Your task to perform on an android device: Go to Yahoo.com Image 0: 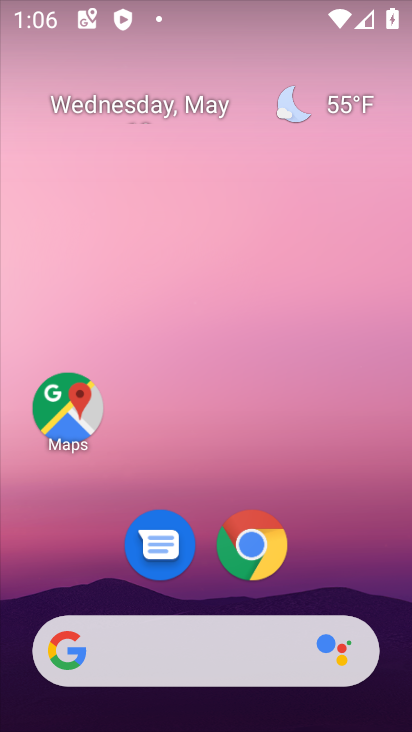
Step 0: click (246, 537)
Your task to perform on an android device: Go to Yahoo.com Image 1: 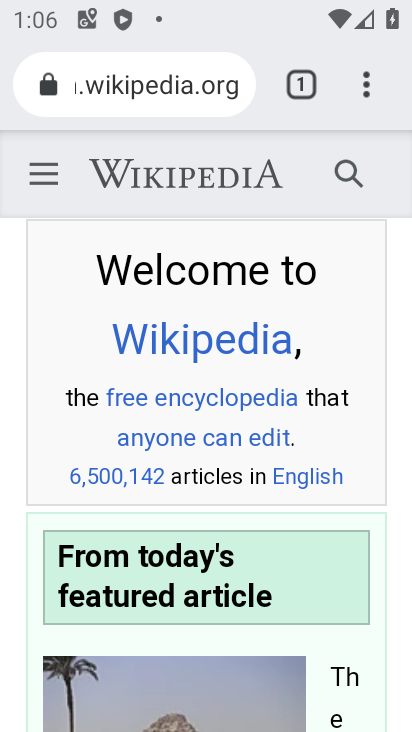
Step 1: click (296, 74)
Your task to perform on an android device: Go to Yahoo.com Image 2: 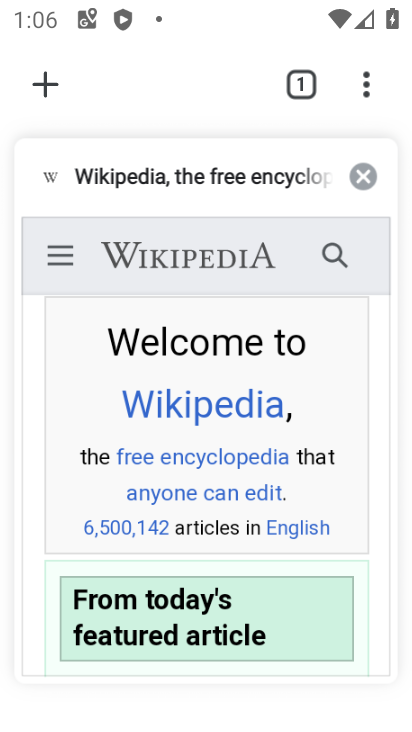
Step 2: click (362, 175)
Your task to perform on an android device: Go to Yahoo.com Image 3: 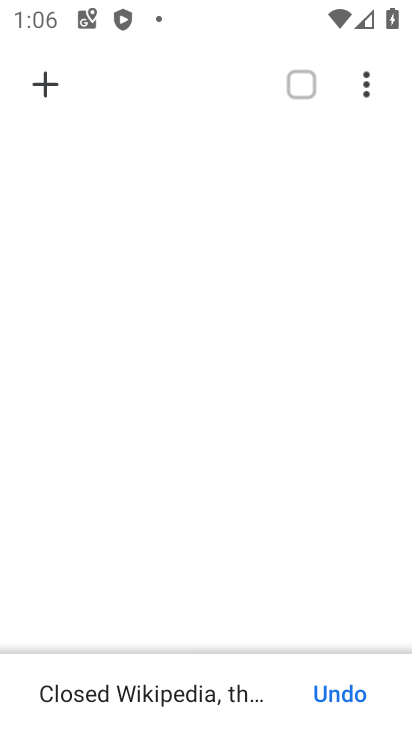
Step 3: click (37, 92)
Your task to perform on an android device: Go to Yahoo.com Image 4: 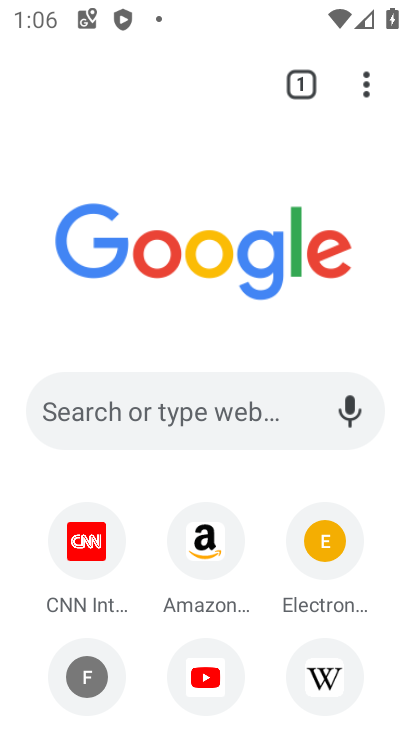
Step 4: click (233, 415)
Your task to perform on an android device: Go to Yahoo.com Image 5: 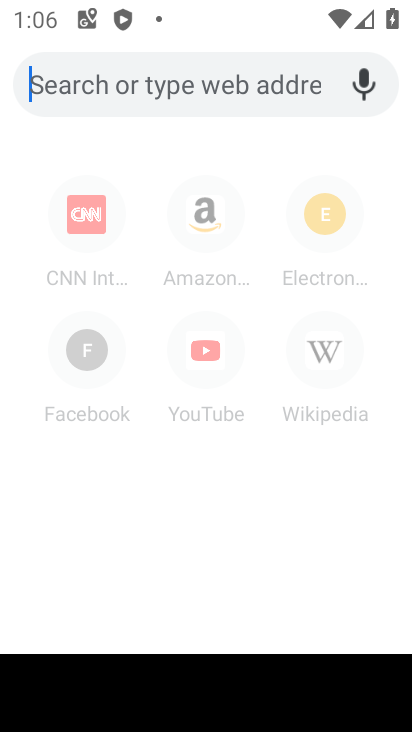
Step 5: type "yahoo.com"
Your task to perform on an android device: Go to Yahoo.com Image 6: 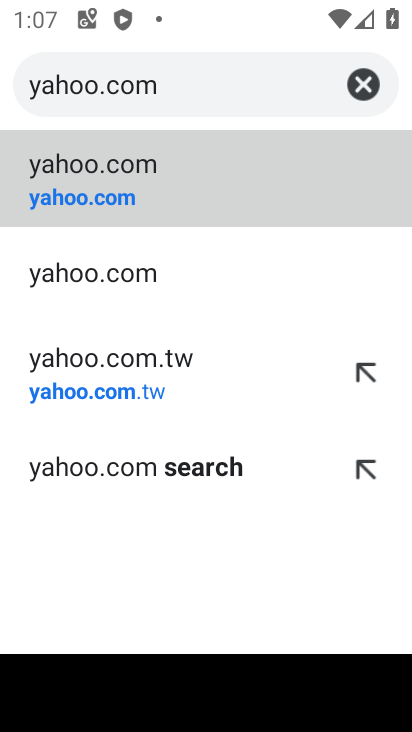
Step 6: click (119, 173)
Your task to perform on an android device: Go to Yahoo.com Image 7: 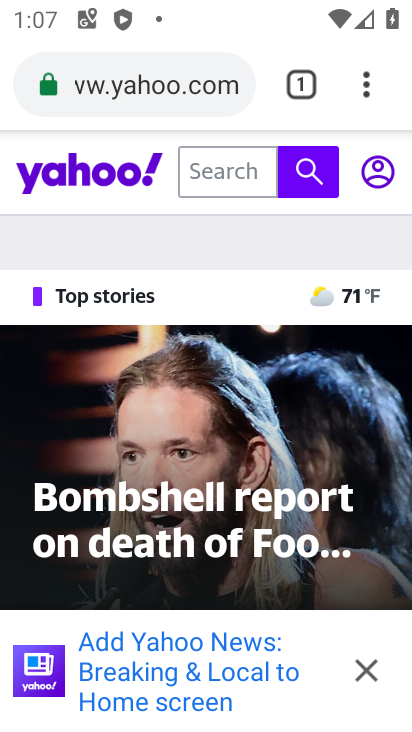
Step 7: task complete